Your task to perform on an android device: delete browsing data in the chrome app Image 0: 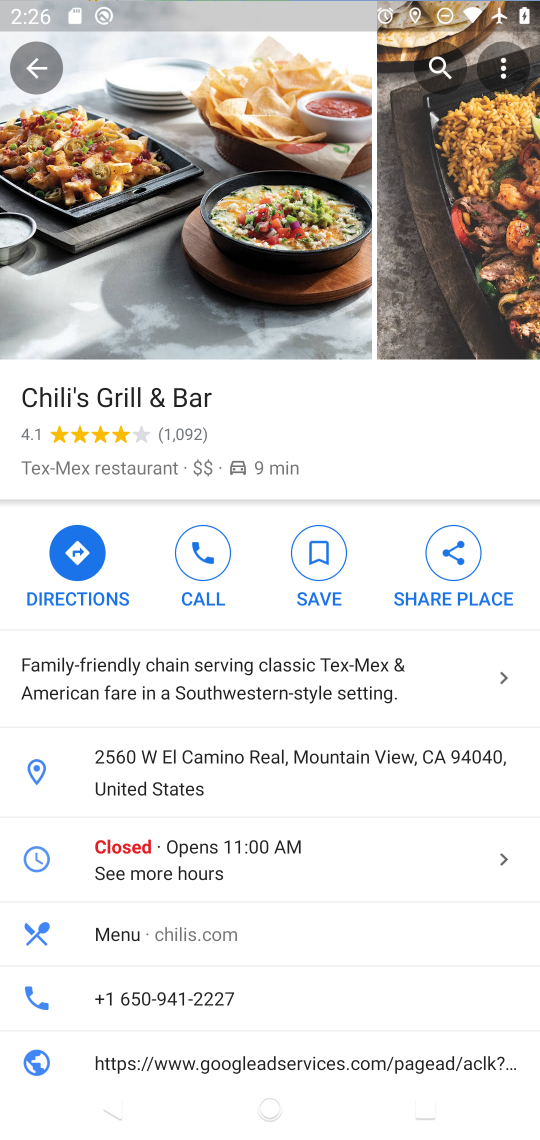
Step 0: press home button
Your task to perform on an android device: delete browsing data in the chrome app Image 1: 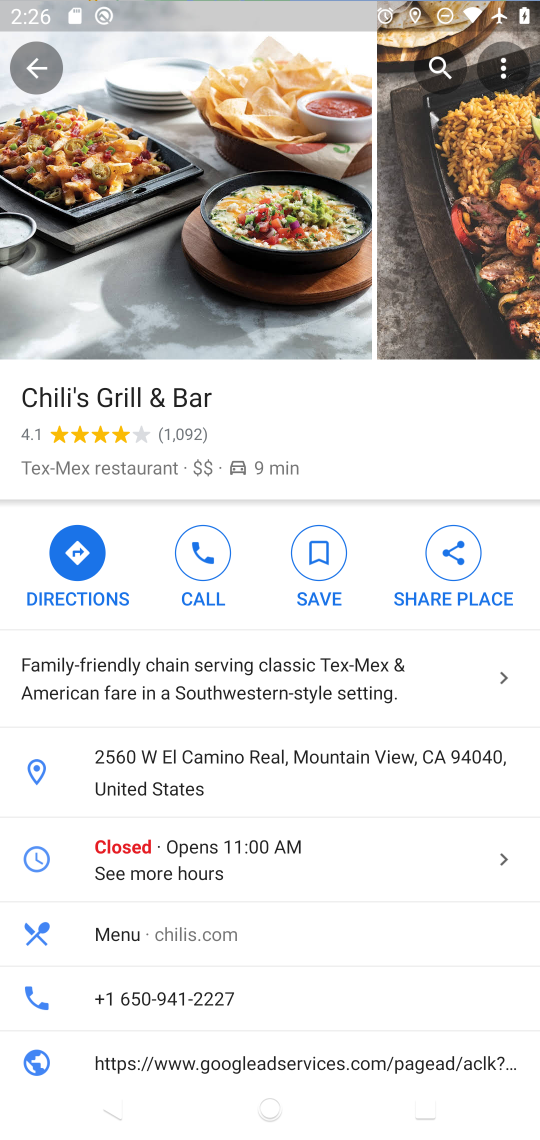
Step 1: press home button
Your task to perform on an android device: delete browsing data in the chrome app Image 2: 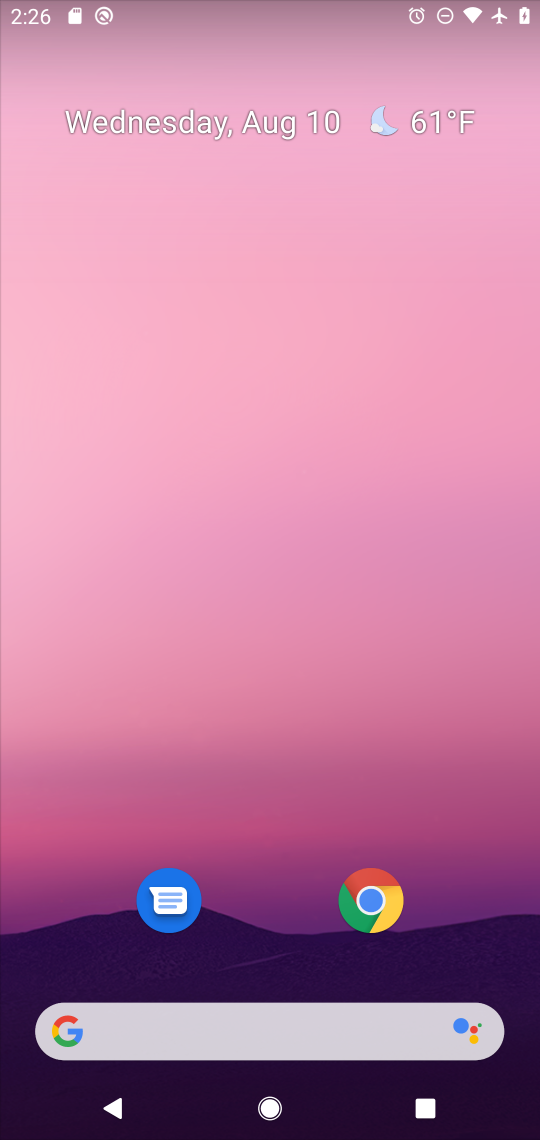
Step 2: click (375, 900)
Your task to perform on an android device: delete browsing data in the chrome app Image 3: 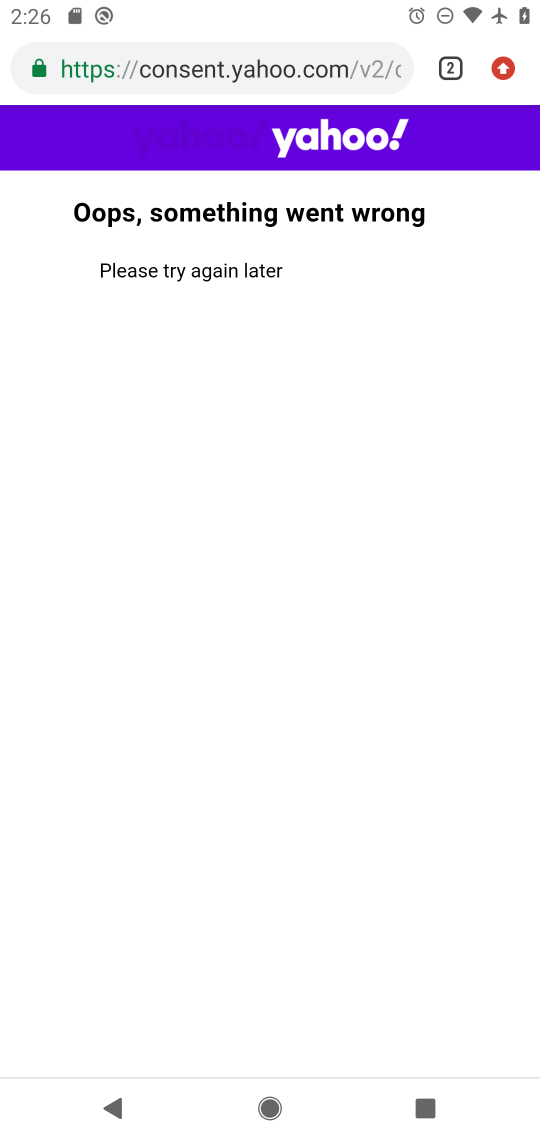
Step 3: click (503, 69)
Your task to perform on an android device: delete browsing data in the chrome app Image 4: 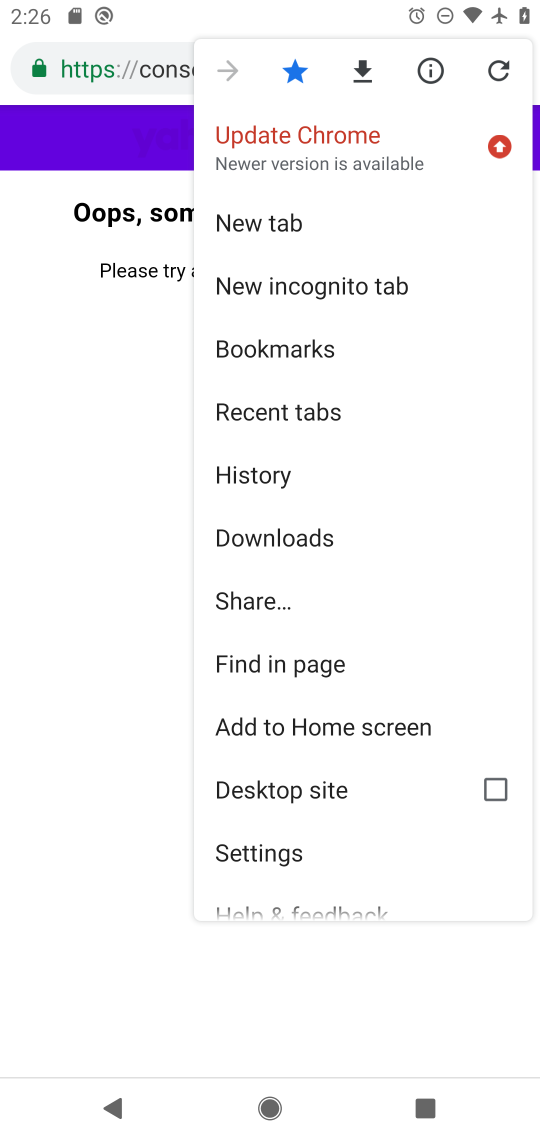
Step 4: click (286, 848)
Your task to perform on an android device: delete browsing data in the chrome app Image 5: 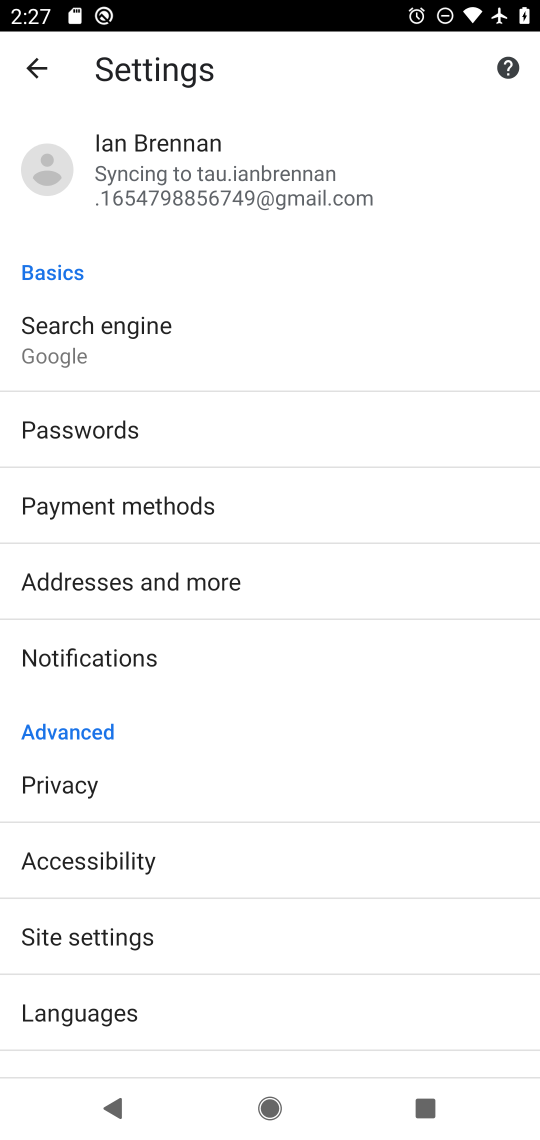
Step 5: click (46, 59)
Your task to perform on an android device: delete browsing data in the chrome app Image 6: 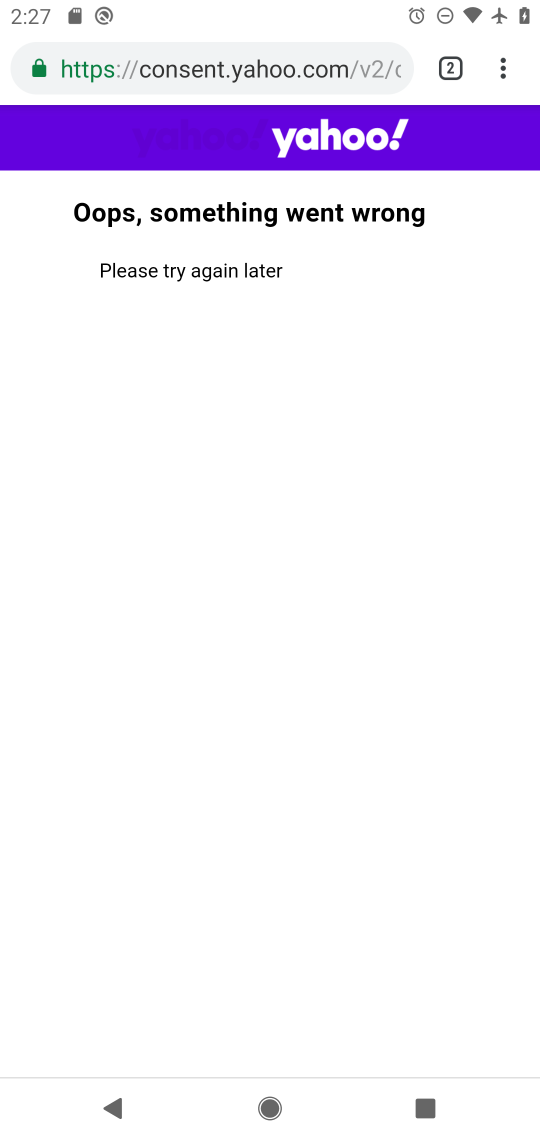
Step 6: click (506, 65)
Your task to perform on an android device: delete browsing data in the chrome app Image 7: 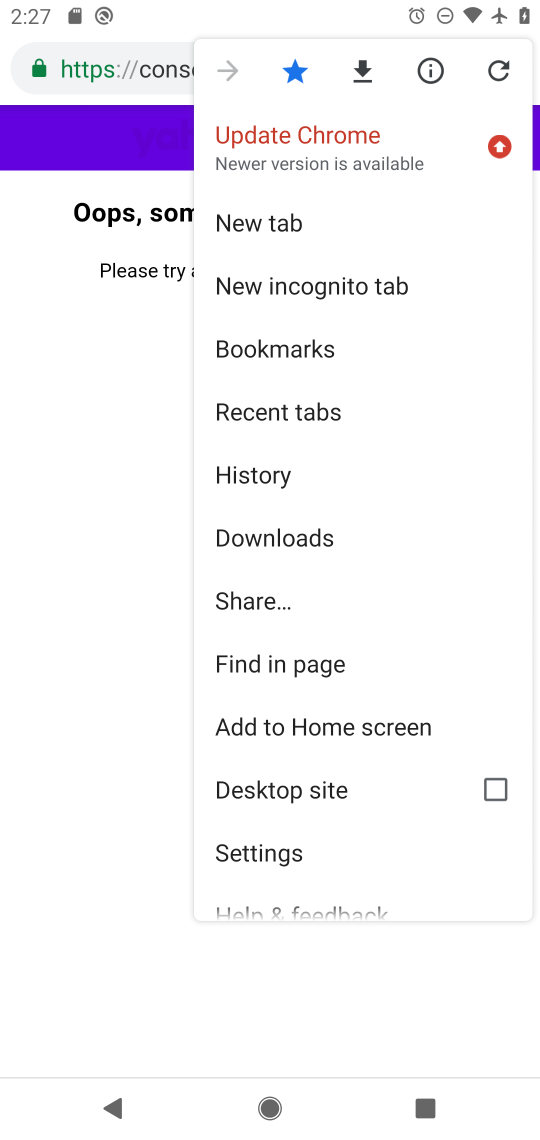
Step 7: click (267, 474)
Your task to perform on an android device: delete browsing data in the chrome app Image 8: 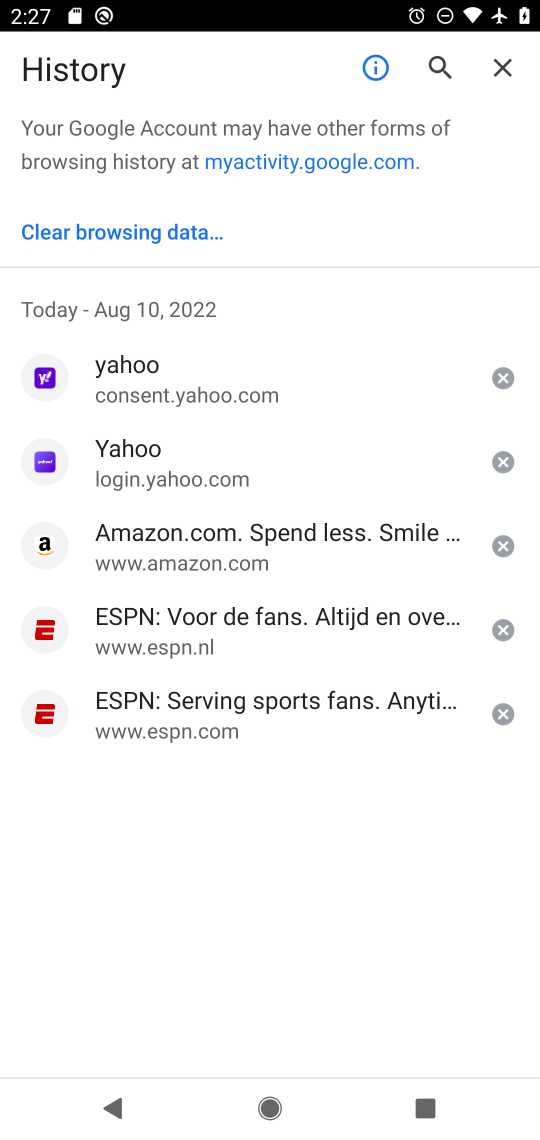
Step 8: click (147, 231)
Your task to perform on an android device: delete browsing data in the chrome app Image 9: 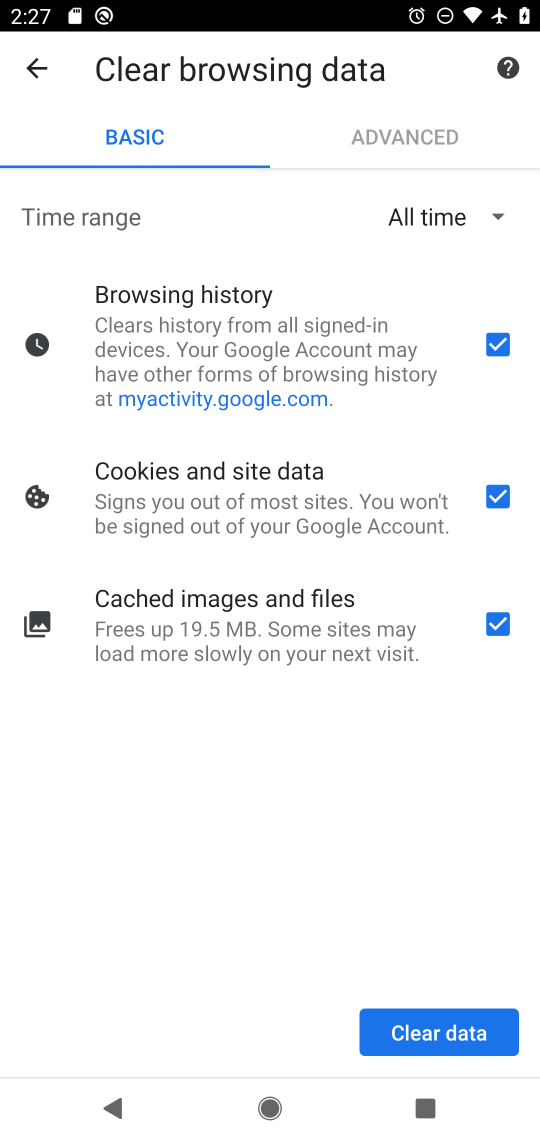
Step 9: click (477, 1010)
Your task to perform on an android device: delete browsing data in the chrome app Image 10: 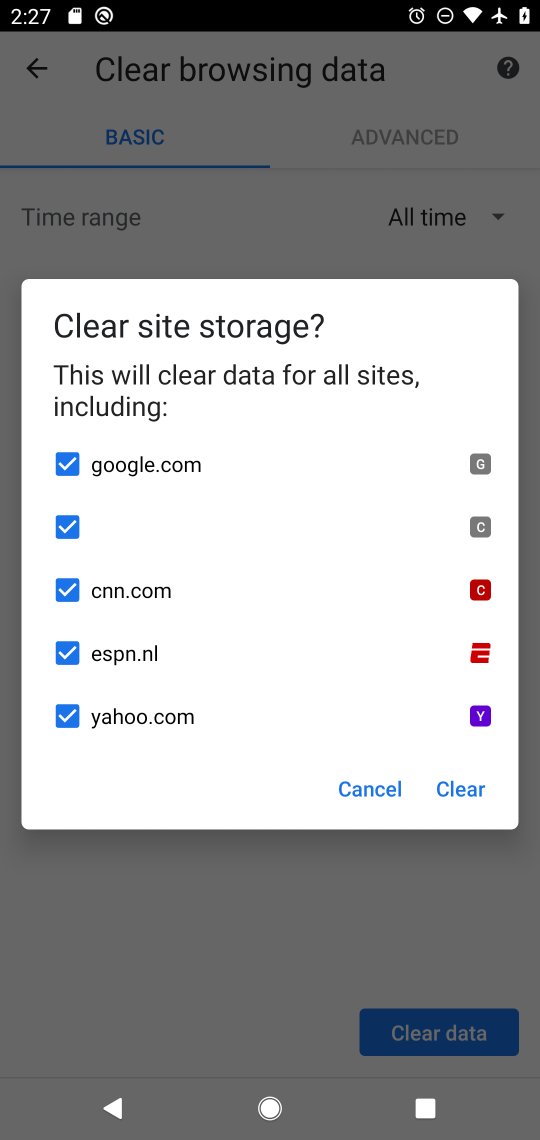
Step 10: click (462, 786)
Your task to perform on an android device: delete browsing data in the chrome app Image 11: 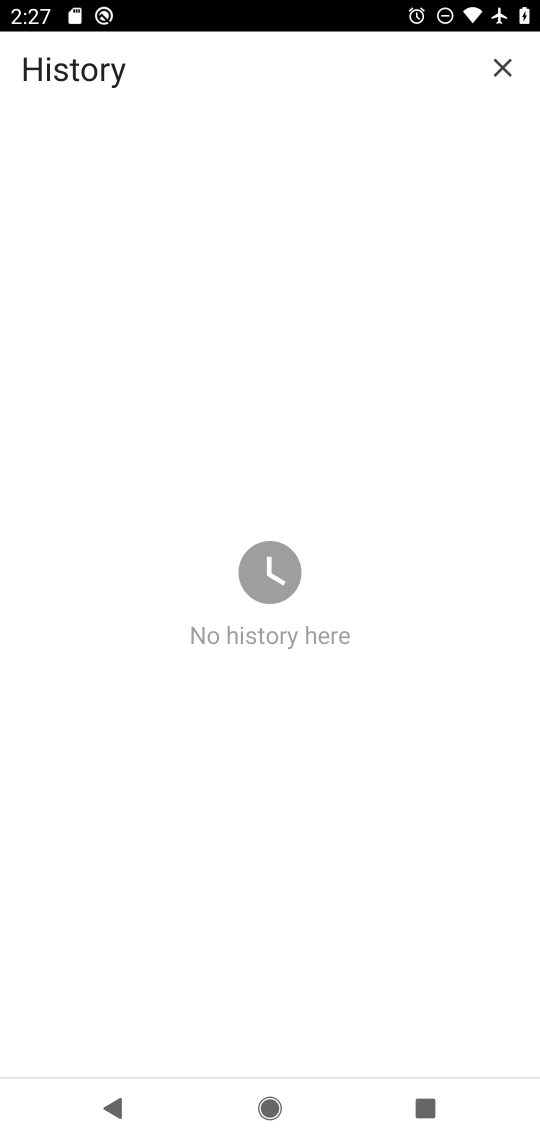
Step 11: task complete